Your task to perform on an android device: Go to accessibility settings Image 0: 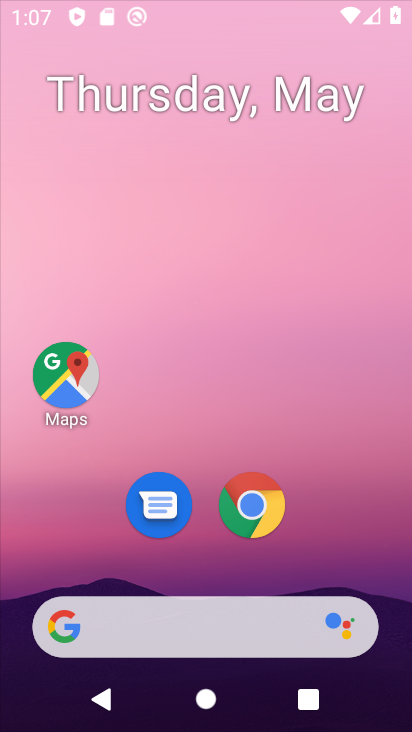
Step 0: click (340, 293)
Your task to perform on an android device: Go to accessibility settings Image 1: 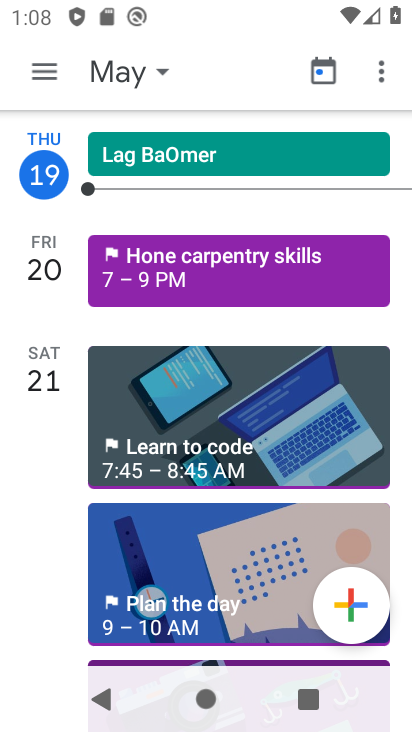
Step 1: press home button
Your task to perform on an android device: Go to accessibility settings Image 2: 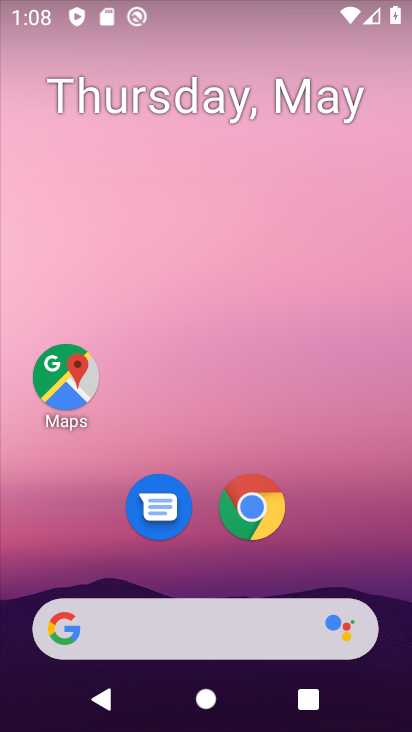
Step 2: drag from (363, 574) to (344, 276)
Your task to perform on an android device: Go to accessibility settings Image 3: 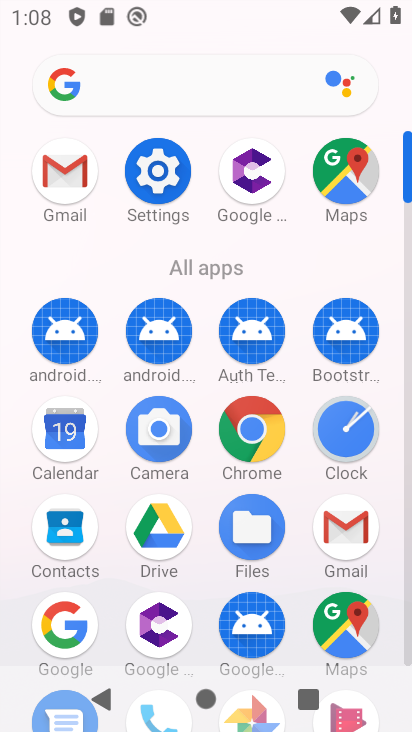
Step 3: click (156, 170)
Your task to perform on an android device: Go to accessibility settings Image 4: 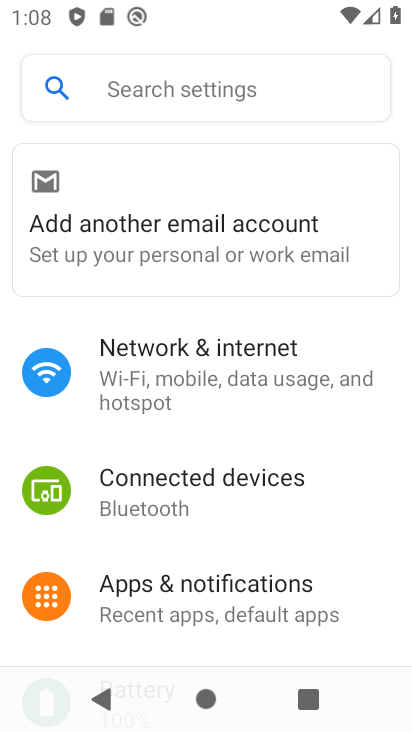
Step 4: drag from (250, 610) to (339, 193)
Your task to perform on an android device: Go to accessibility settings Image 5: 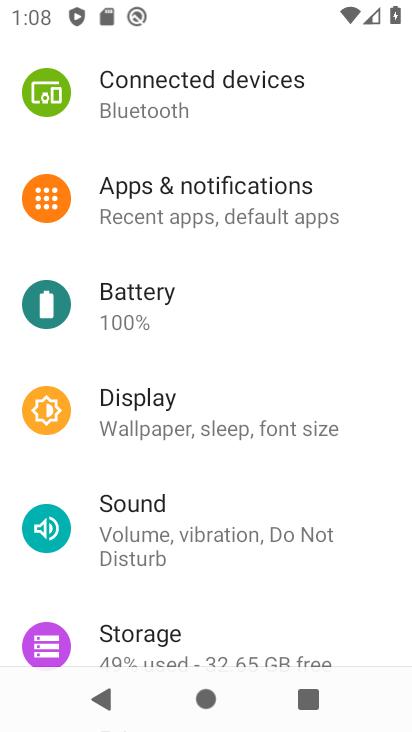
Step 5: drag from (224, 539) to (325, 99)
Your task to perform on an android device: Go to accessibility settings Image 6: 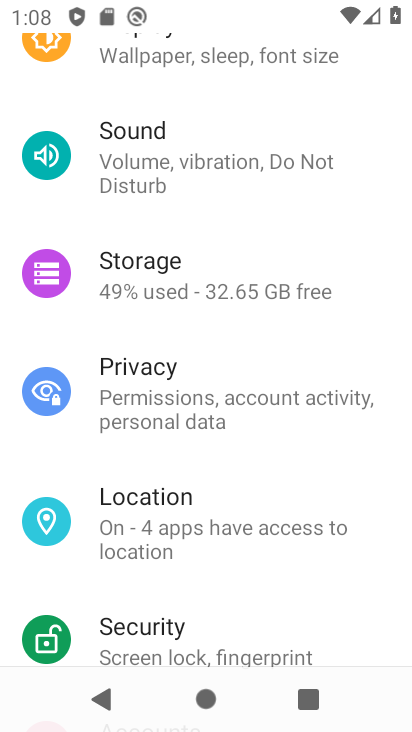
Step 6: drag from (177, 603) to (278, 171)
Your task to perform on an android device: Go to accessibility settings Image 7: 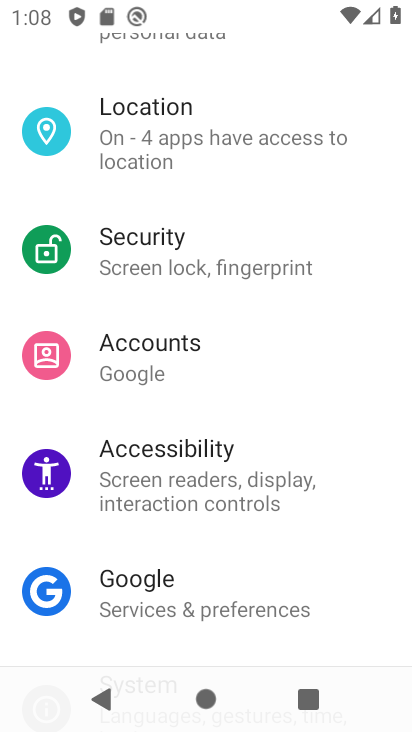
Step 7: drag from (216, 579) to (256, 445)
Your task to perform on an android device: Go to accessibility settings Image 8: 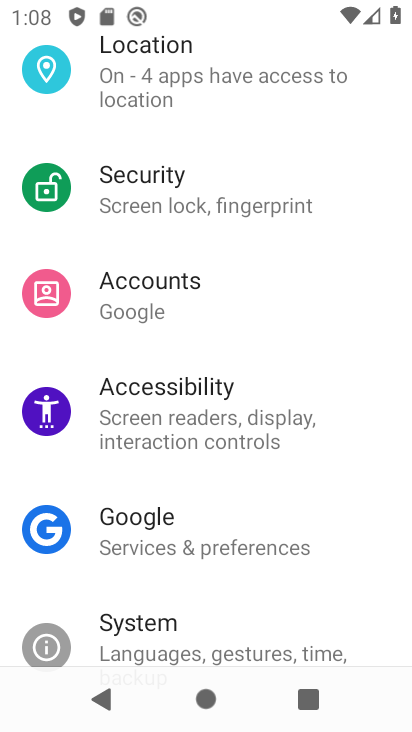
Step 8: click (193, 393)
Your task to perform on an android device: Go to accessibility settings Image 9: 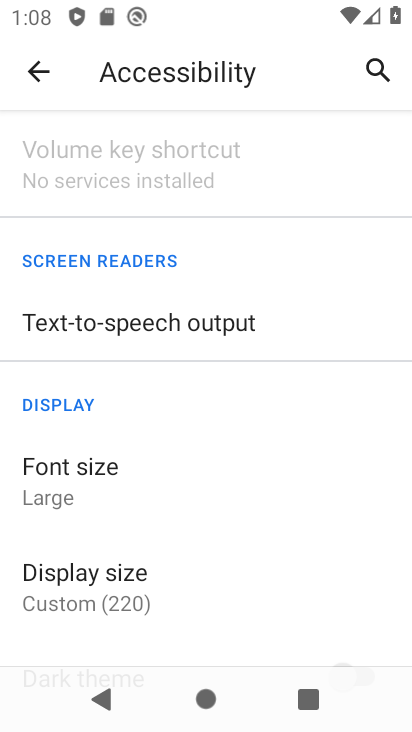
Step 9: task complete